Your task to perform on an android device: Open Chrome and go to settings Image 0: 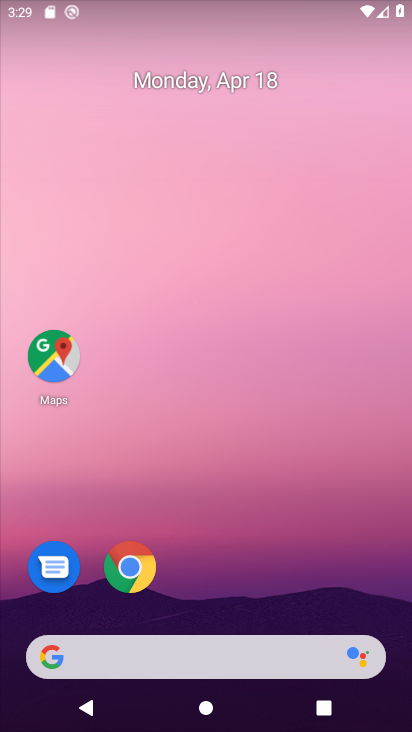
Step 0: click (135, 584)
Your task to perform on an android device: Open Chrome and go to settings Image 1: 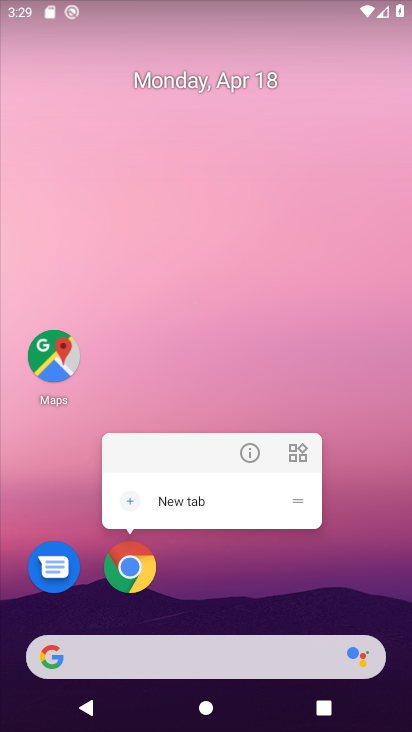
Step 1: click (134, 584)
Your task to perform on an android device: Open Chrome and go to settings Image 2: 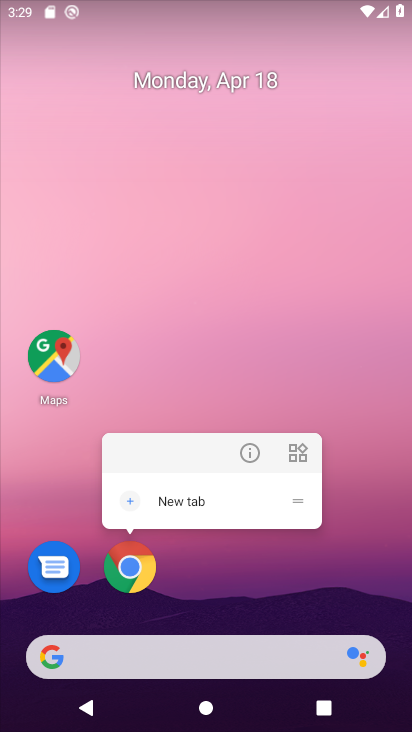
Step 2: click (134, 584)
Your task to perform on an android device: Open Chrome and go to settings Image 3: 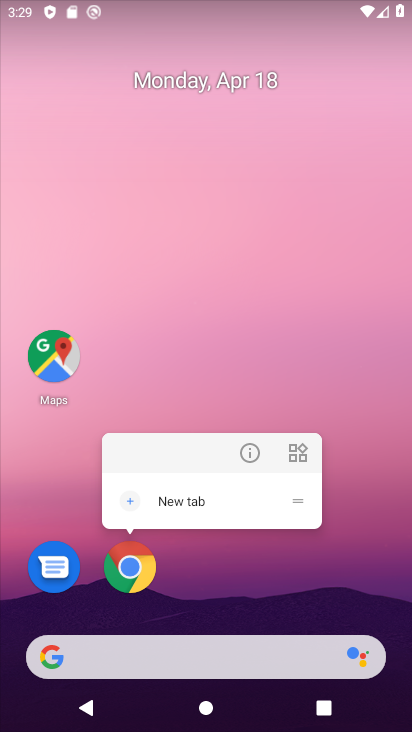
Step 3: click (134, 584)
Your task to perform on an android device: Open Chrome and go to settings Image 4: 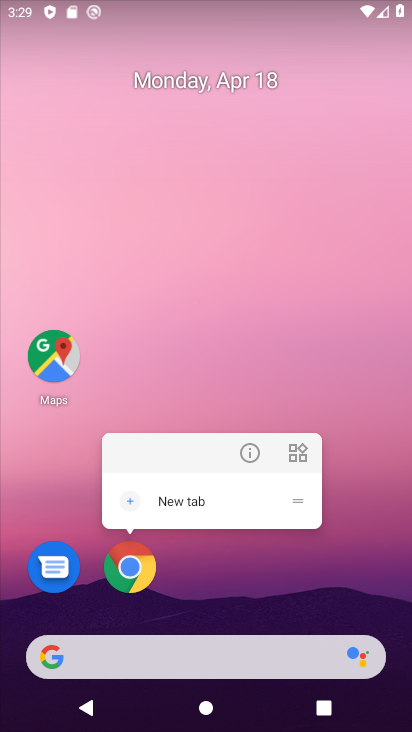
Step 4: click (144, 572)
Your task to perform on an android device: Open Chrome and go to settings Image 5: 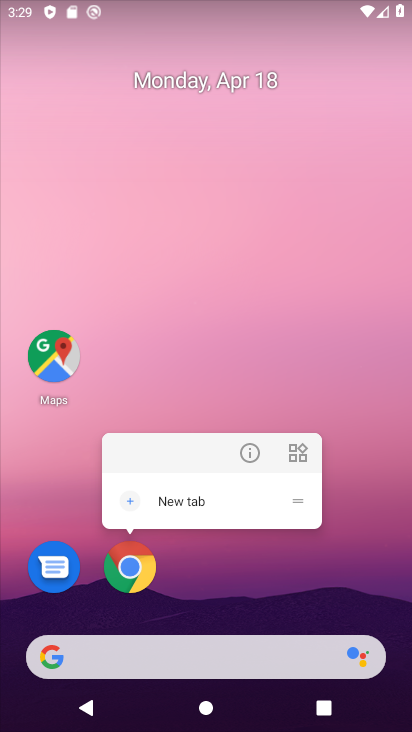
Step 5: click (141, 574)
Your task to perform on an android device: Open Chrome and go to settings Image 6: 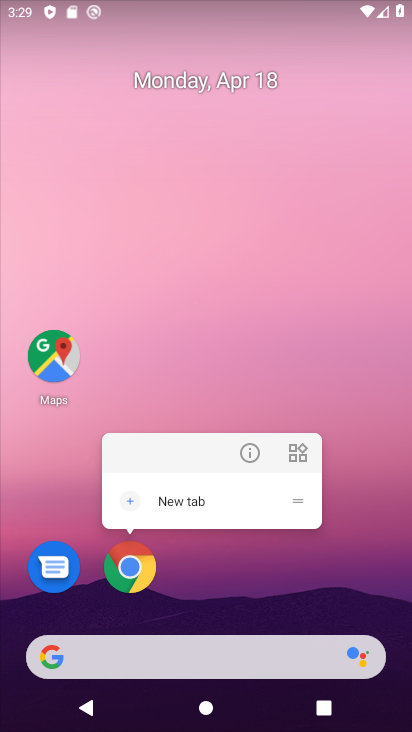
Step 6: click (141, 574)
Your task to perform on an android device: Open Chrome and go to settings Image 7: 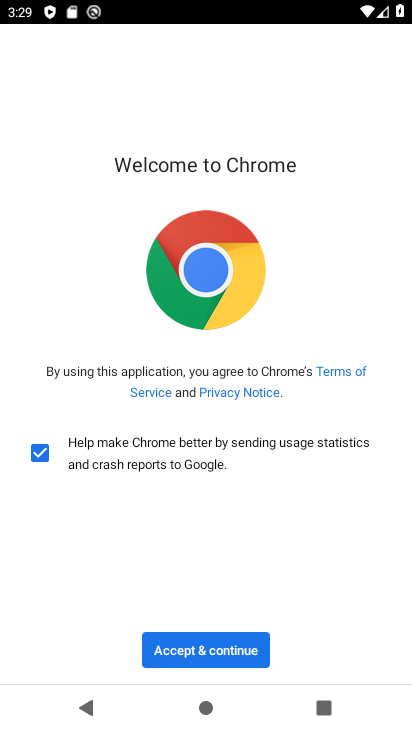
Step 7: click (223, 649)
Your task to perform on an android device: Open Chrome and go to settings Image 8: 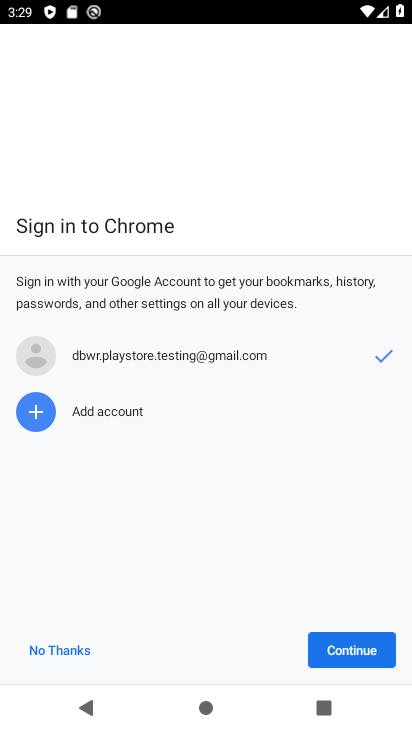
Step 8: click (382, 649)
Your task to perform on an android device: Open Chrome and go to settings Image 9: 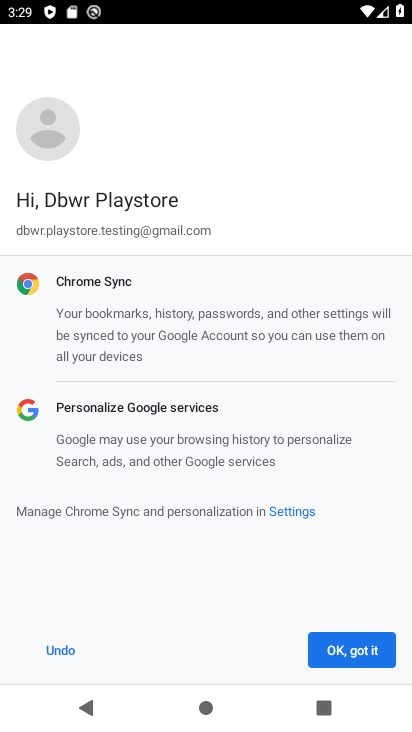
Step 9: click (382, 649)
Your task to perform on an android device: Open Chrome and go to settings Image 10: 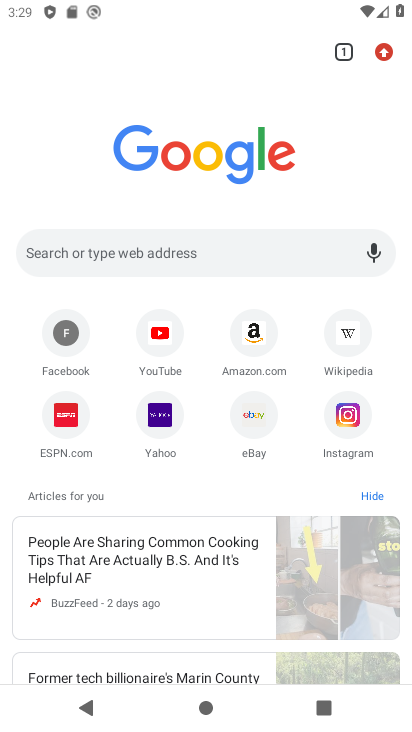
Step 10: click (378, 57)
Your task to perform on an android device: Open Chrome and go to settings Image 11: 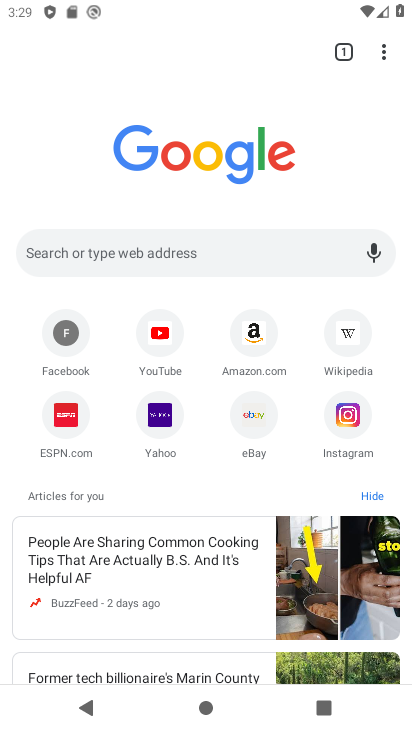
Step 11: task complete